Your task to perform on an android device: Search for "razer naga" on amazon.com, select the first entry, and add it to the cart. Image 0: 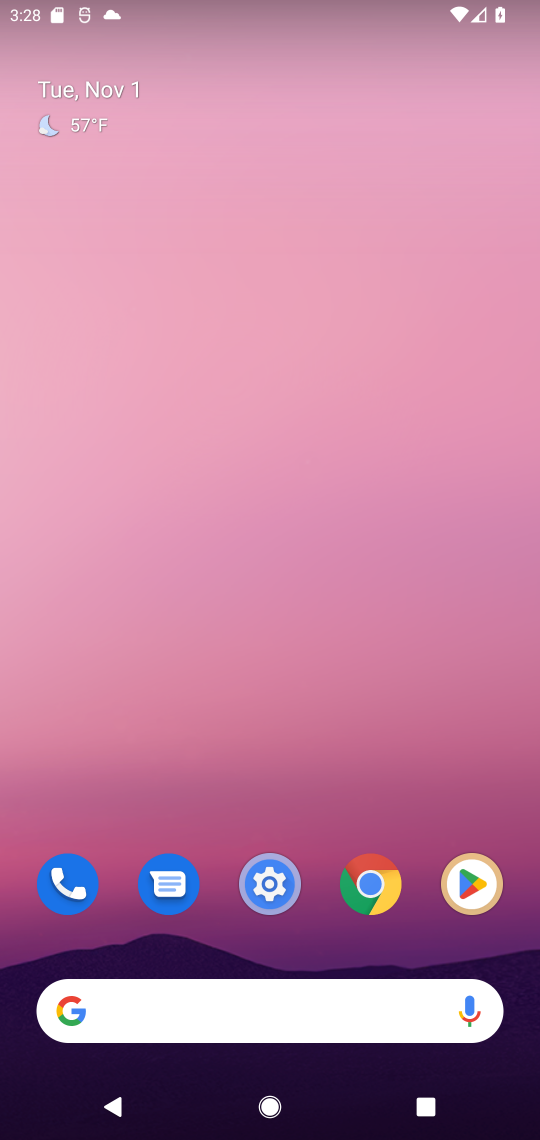
Step 0: press home button
Your task to perform on an android device: Search for "razer naga" on amazon.com, select the first entry, and add it to the cart. Image 1: 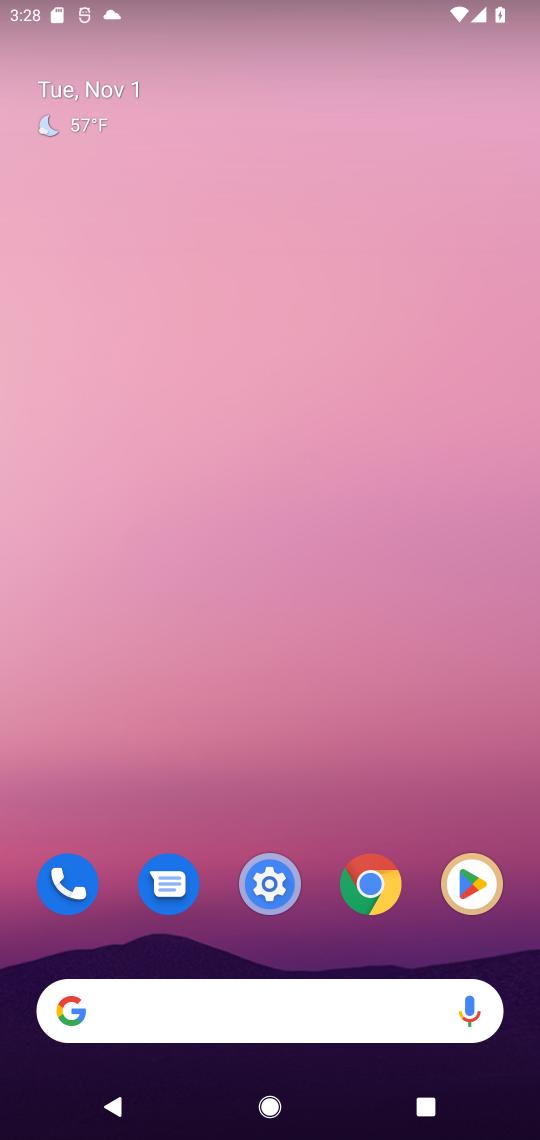
Step 1: click (103, 1018)
Your task to perform on an android device: Search for "razer naga" on amazon.com, select the first entry, and add it to the cart. Image 2: 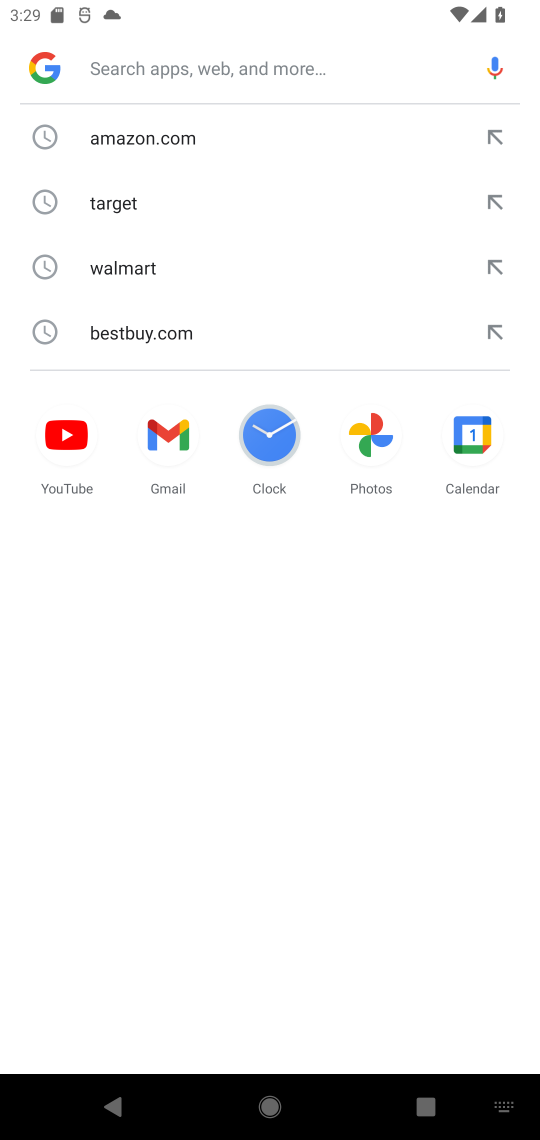
Step 2: type " amazon.com"
Your task to perform on an android device: Search for "razer naga" on amazon.com, select the first entry, and add it to the cart. Image 3: 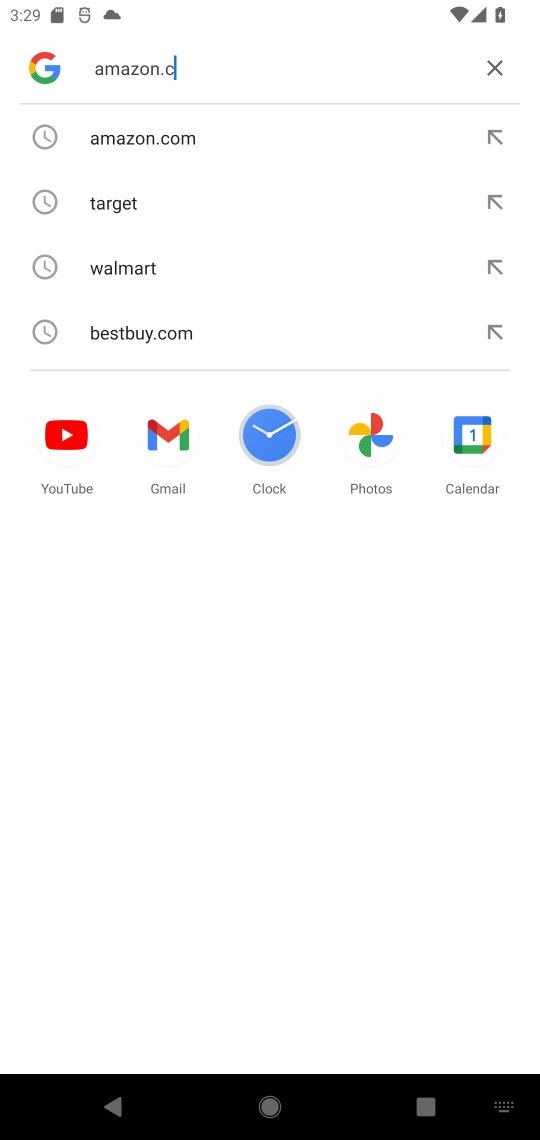
Step 3: press enter
Your task to perform on an android device: Search for "razer naga" on amazon.com, select the first entry, and add it to the cart. Image 4: 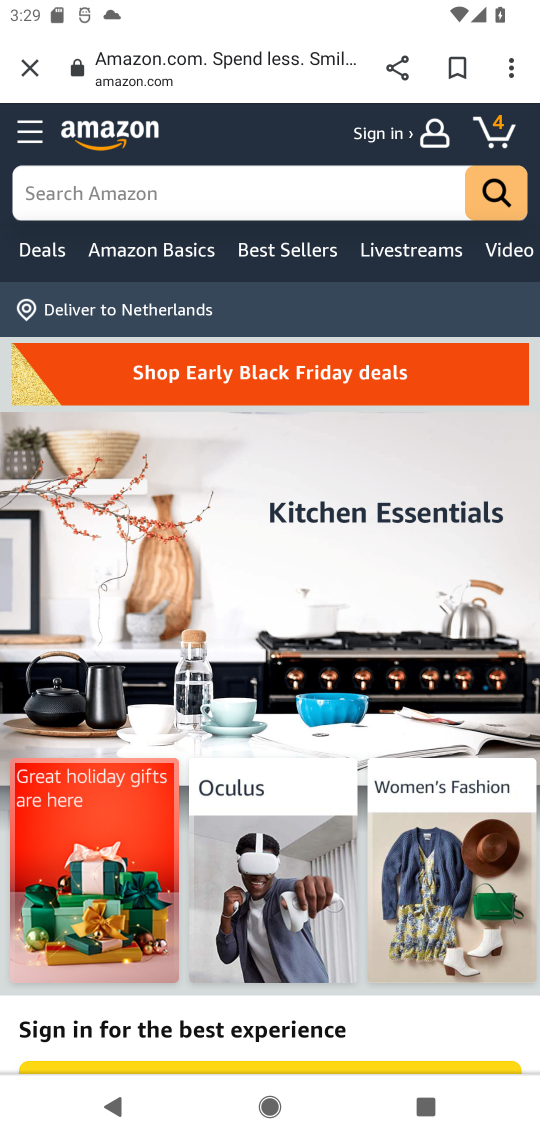
Step 4: click (40, 188)
Your task to perform on an android device: Search for "razer naga" on amazon.com, select the first entry, and add it to the cart. Image 5: 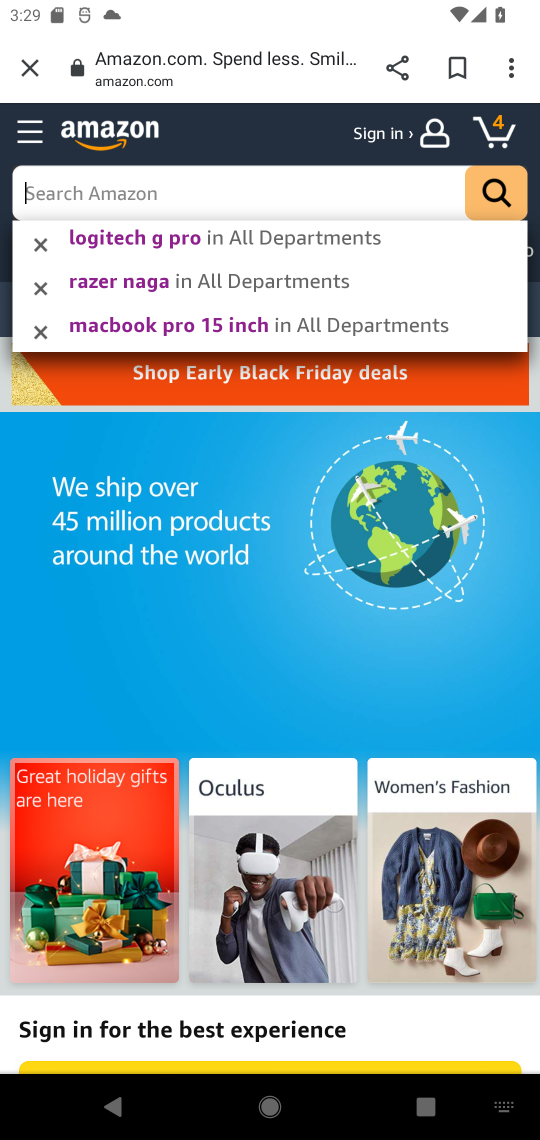
Step 5: type "razer naga"
Your task to perform on an android device: Search for "razer naga" on amazon.com, select the first entry, and add it to the cart. Image 6: 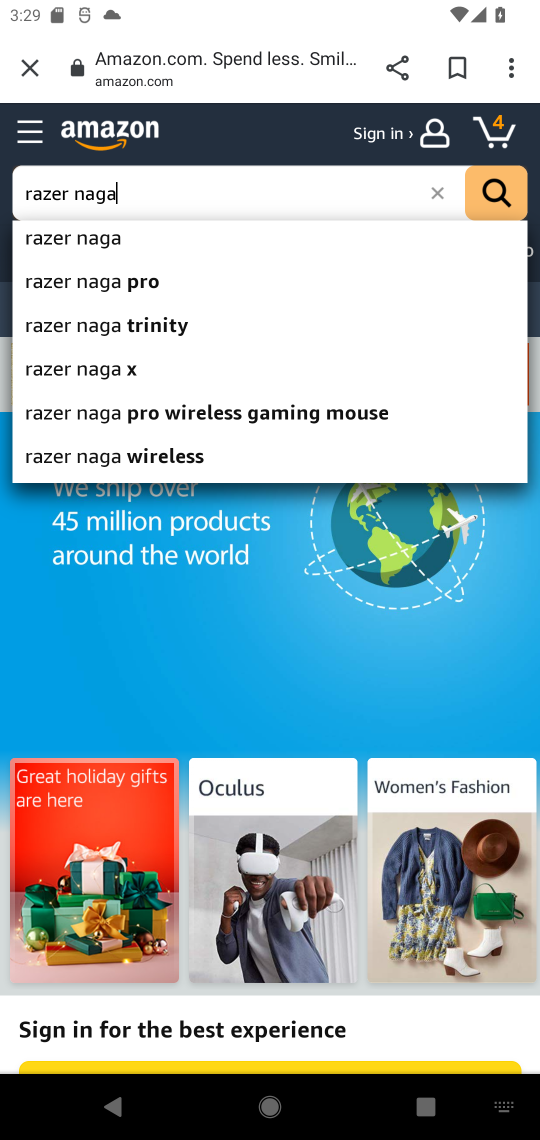
Step 6: click (489, 183)
Your task to perform on an android device: Search for "razer naga" on amazon.com, select the first entry, and add it to the cart. Image 7: 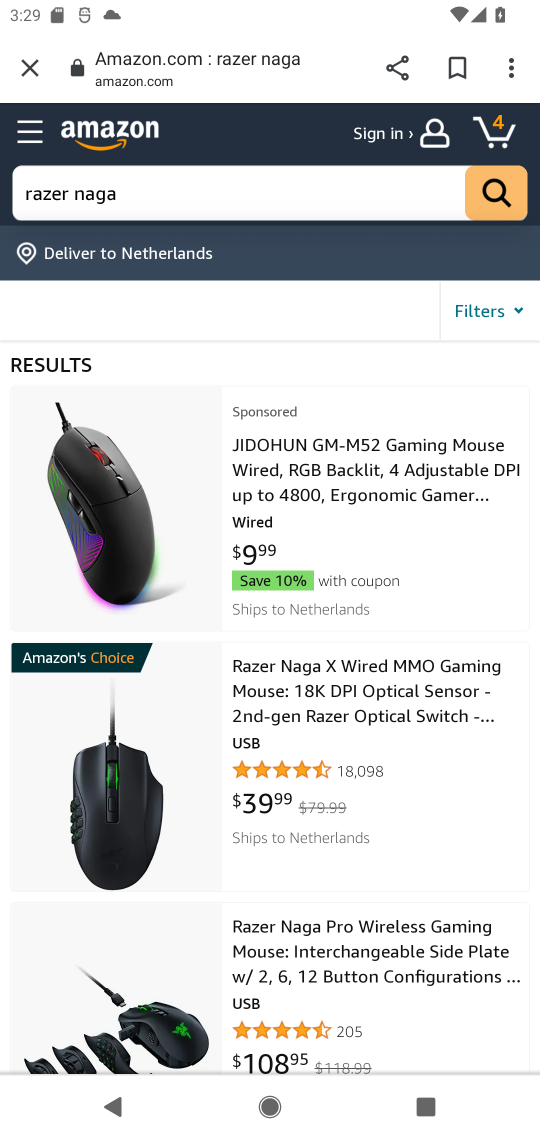
Step 7: drag from (345, 970) to (391, 485)
Your task to perform on an android device: Search for "razer naga" on amazon.com, select the first entry, and add it to the cart. Image 8: 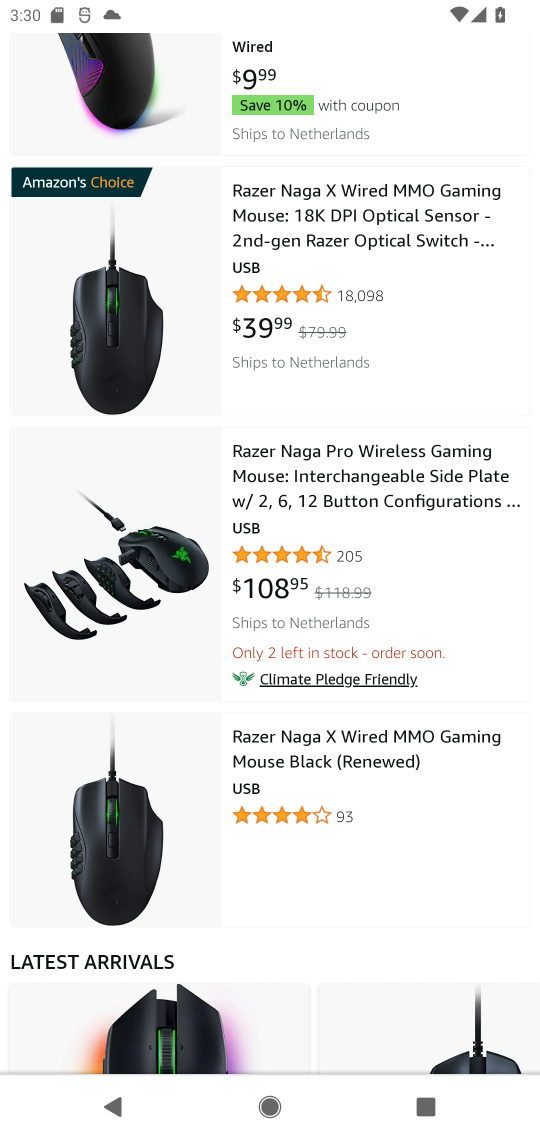
Step 8: click (311, 760)
Your task to perform on an android device: Search for "razer naga" on amazon.com, select the first entry, and add it to the cart. Image 9: 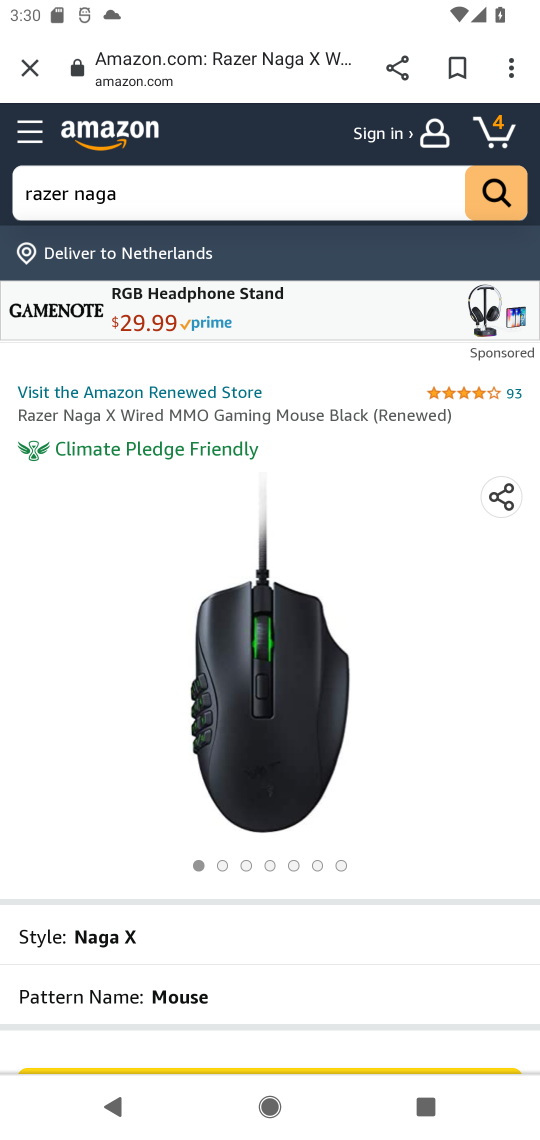
Step 9: task complete